Your task to perform on an android device: turn off smart reply in the gmail app Image 0: 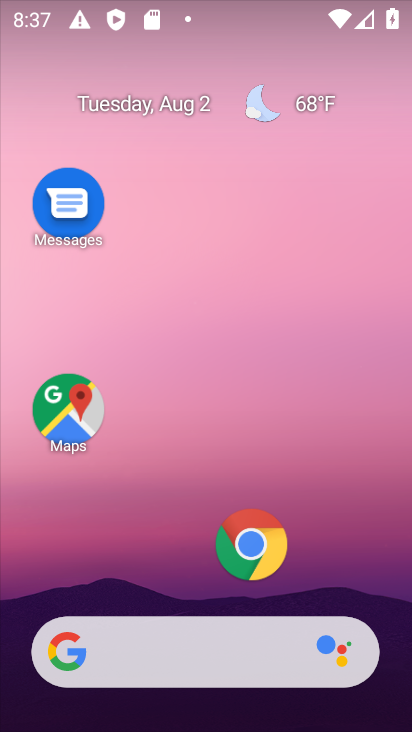
Step 0: drag from (175, 615) to (136, 148)
Your task to perform on an android device: turn off smart reply in the gmail app Image 1: 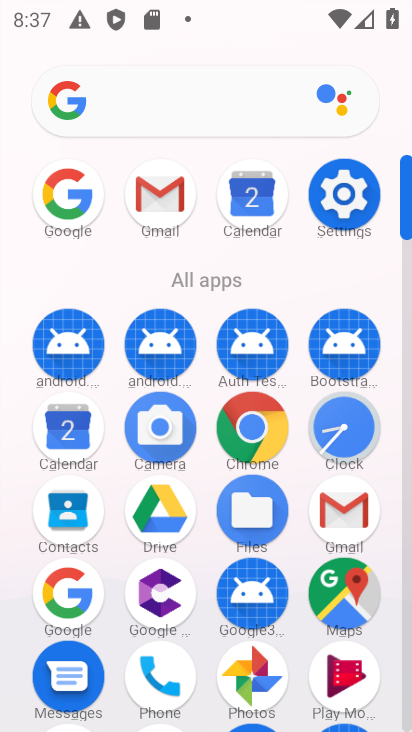
Step 1: click (172, 184)
Your task to perform on an android device: turn off smart reply in the gmail app Image 2: 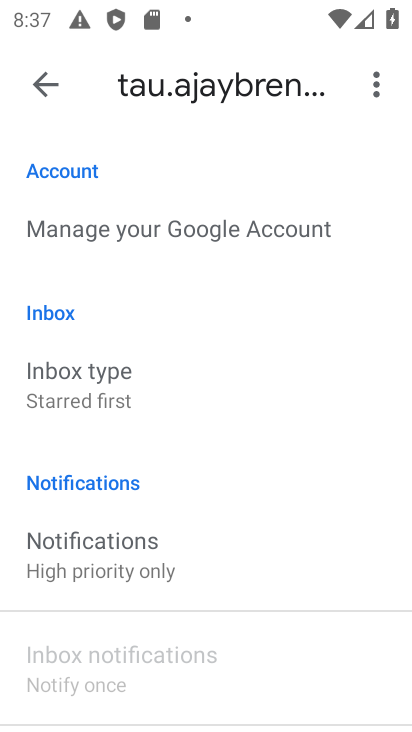
Step 2: drag from (93, 582) to (107, 163)
Your task to perform on an android device: turn off smart reply in the gmail app Image 3: 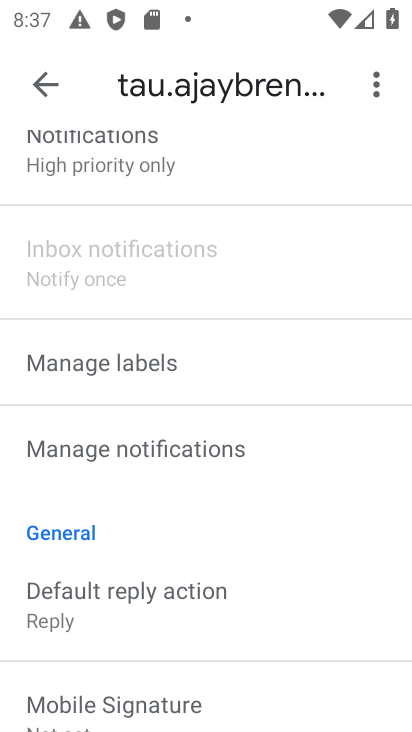
Step 3: drag from (109, 651) to (103, 269)
Your task to perform on an android device: turn off smart reply in the gmail app Image 4: 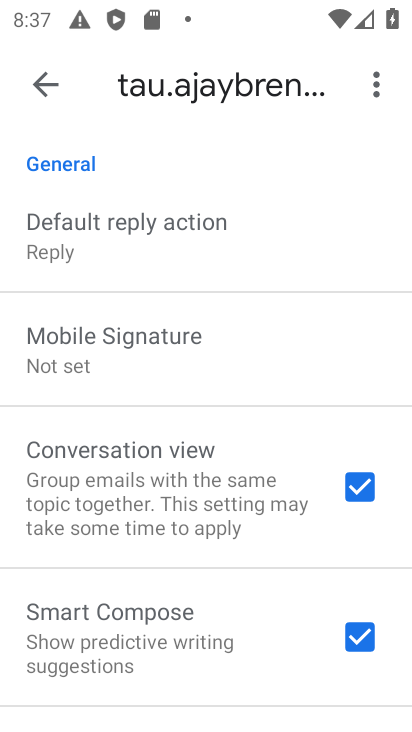
Step 4: drag from (126, 624) to (102, 221)
Your task to perform on an android device: turn off smart reply in the gmail app Image 5: 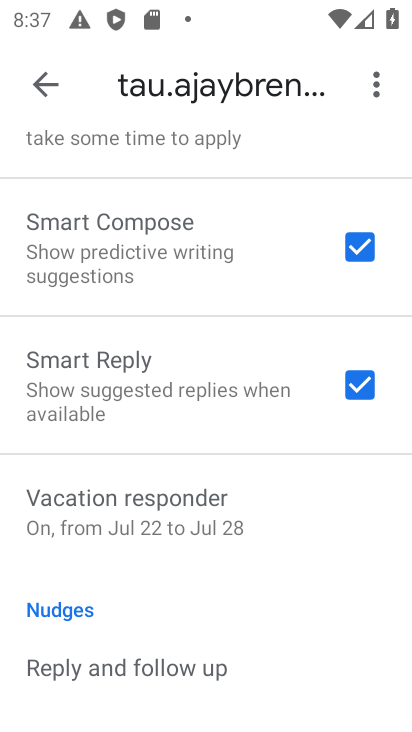
Step 5: click (358, 381)
Your task to perform on an android device: turn off smart reply in the gmail app Image 6: 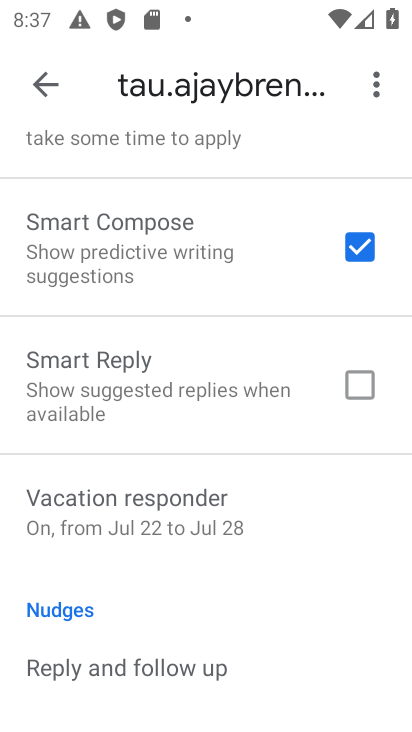
Step 6: task complete